Your task to perform on an android device: allow cookies in the chrome app Image 0: 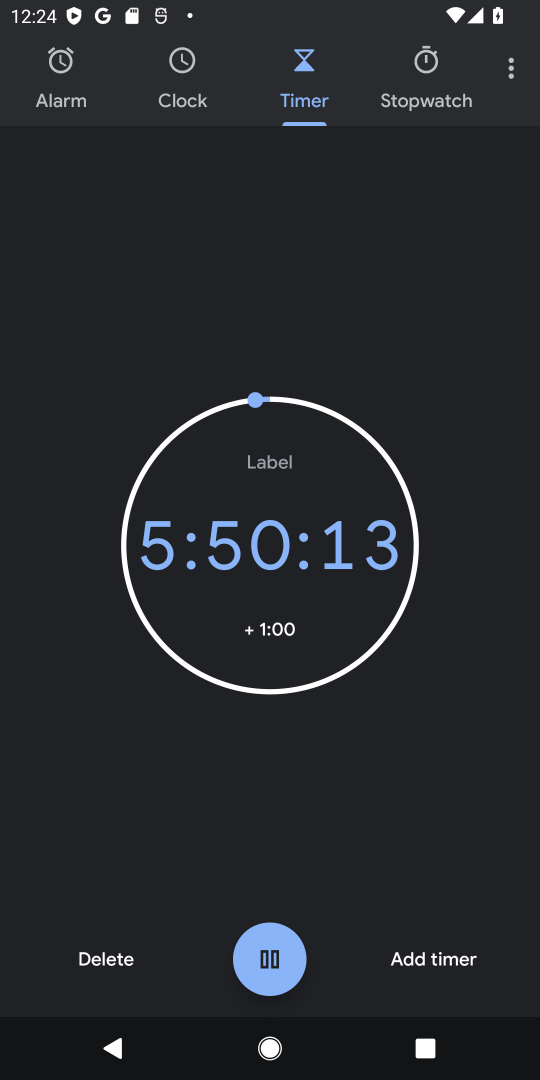
Step 0: press home button
Your task to perform on an android device: allow cookies in the chrome app Image 1: 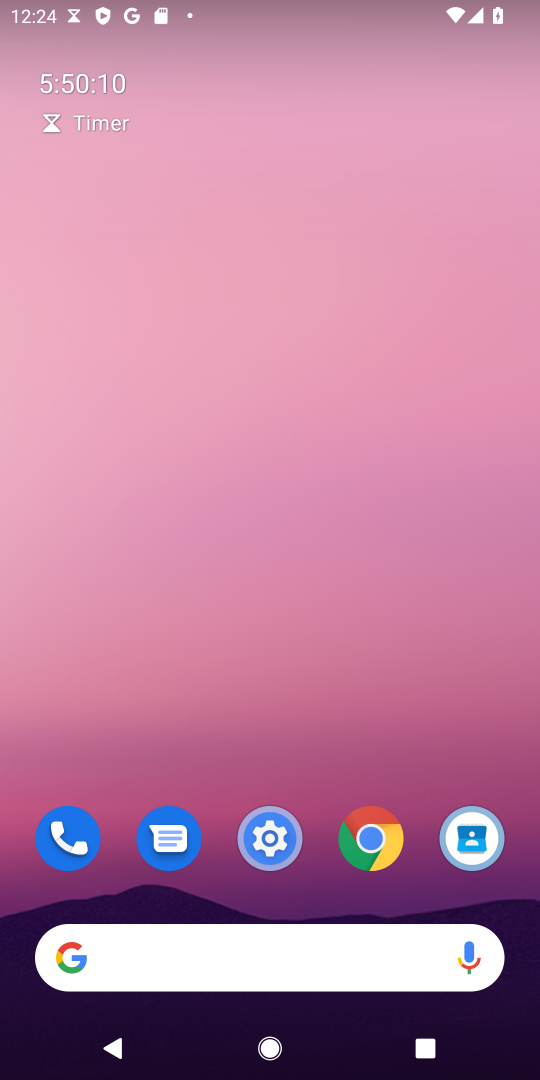
Step 1: click (384, 822)
Your task to perform on an android device: allow cookies in the chrome app Image 2: 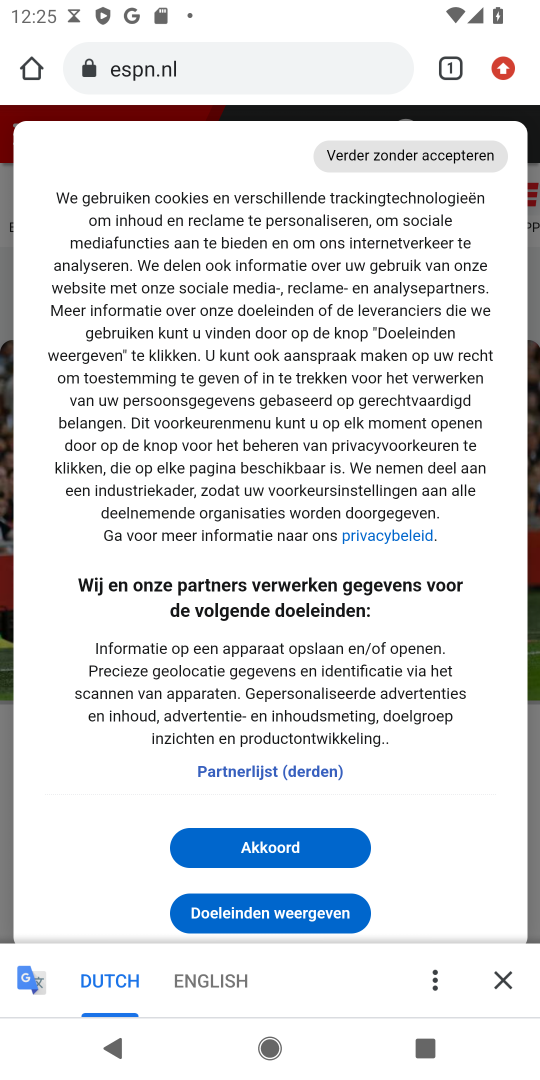
Step 2: click (511, 68)
Your task to perform on an android device: allow cookies in the chrome app Image 3: 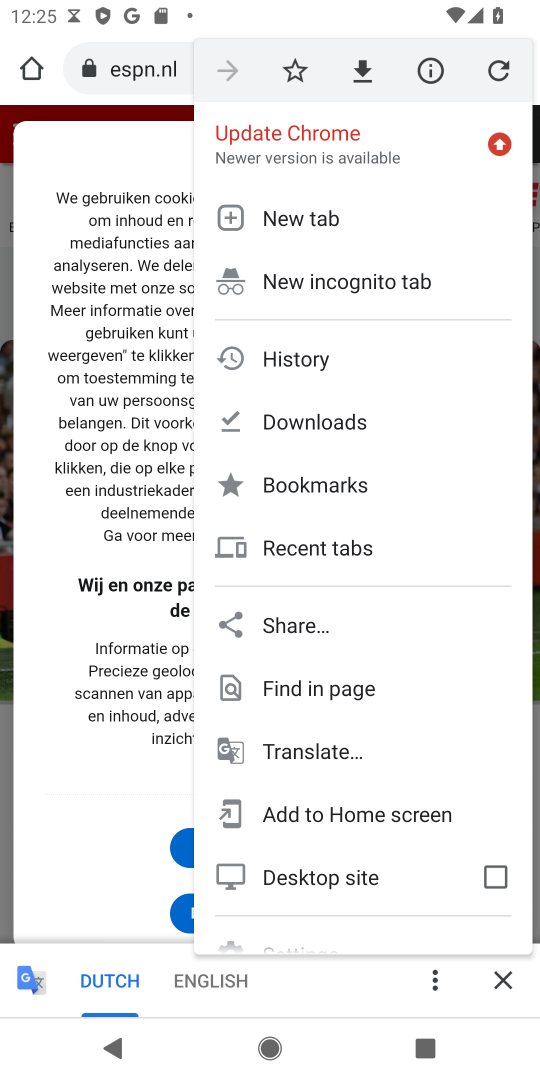
Step 3: drag from (324, 852) to (288, 400)
Your task to perform on an android device: allow cookies in the chrome app Image 4: 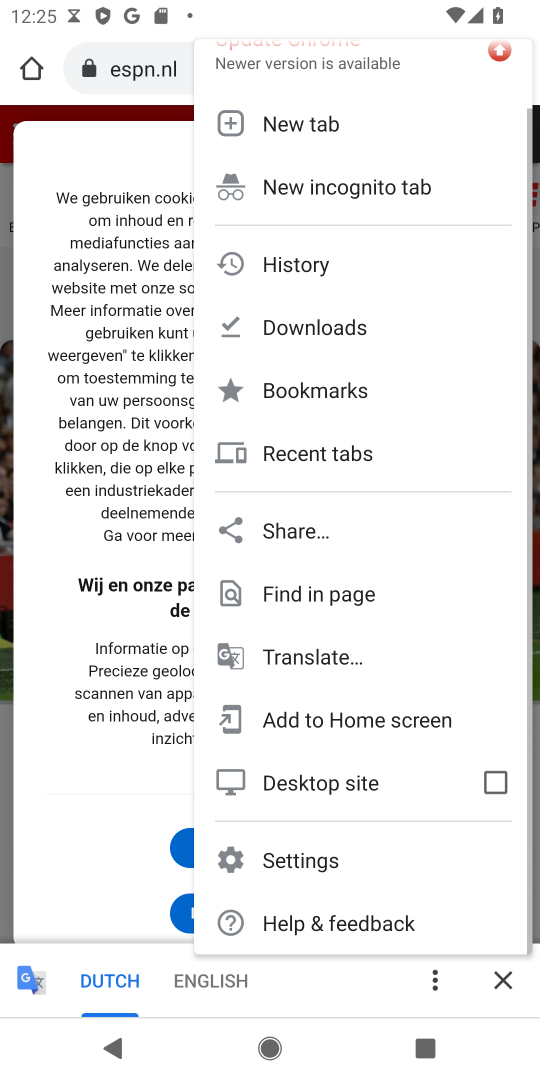
Step 4: click (317, 870)
Your task to perform on an android device: allow cookies in the chrome app Image 5: 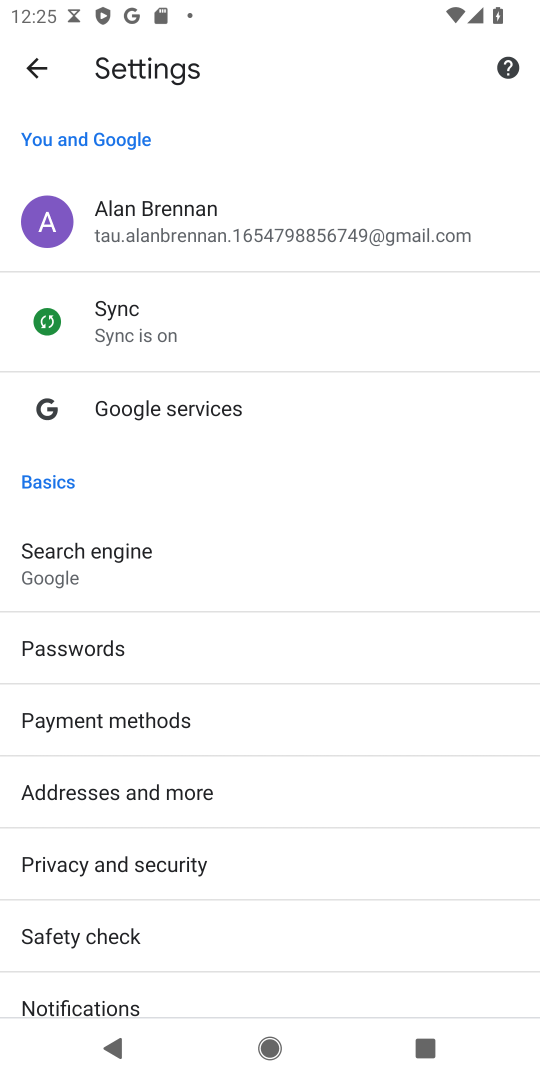
Step 5: drag from (306, 983) to (256, 428)
Your task to perform on an android device: allow cookies in the chrome app Image 6: 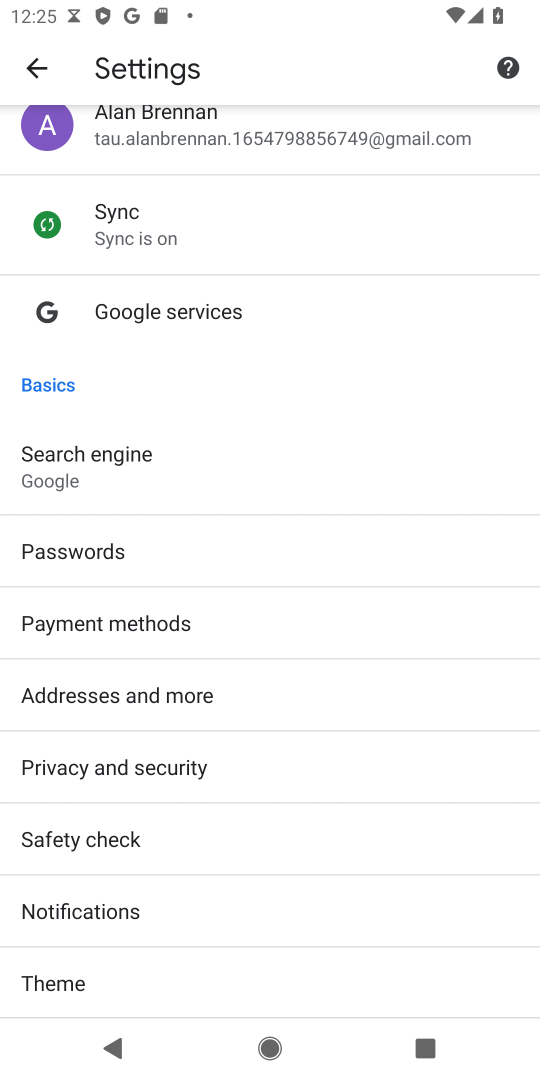
Step 6: drag from (342, 808) to (315, 105)
Your task to perform on an android device: allow cookies in the chrome app Image 7: 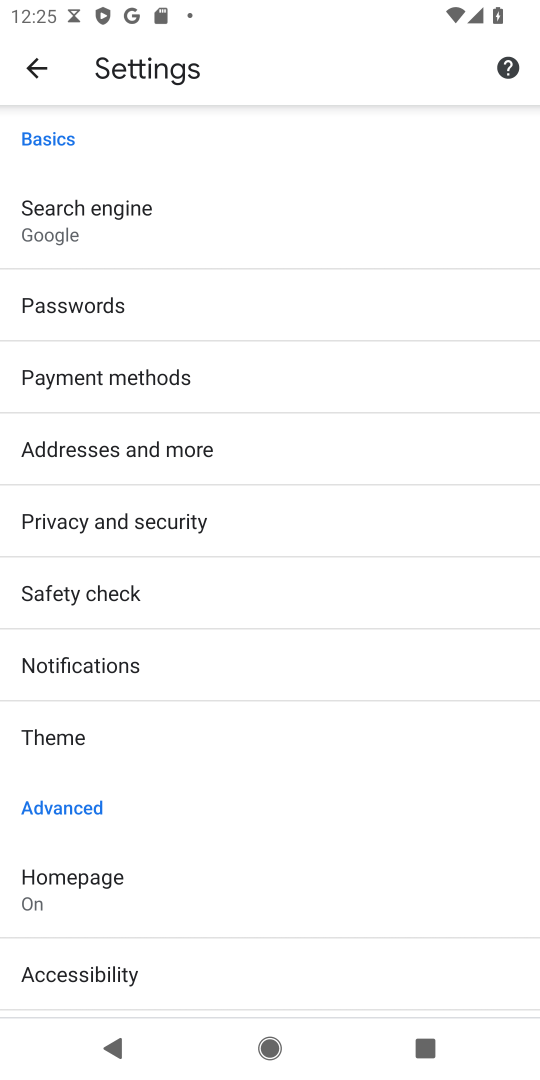
Step 7: drag from (233, 840) to (170, 187)
Your task to perform on an android device: allow cookies in the chrome app Image 8: 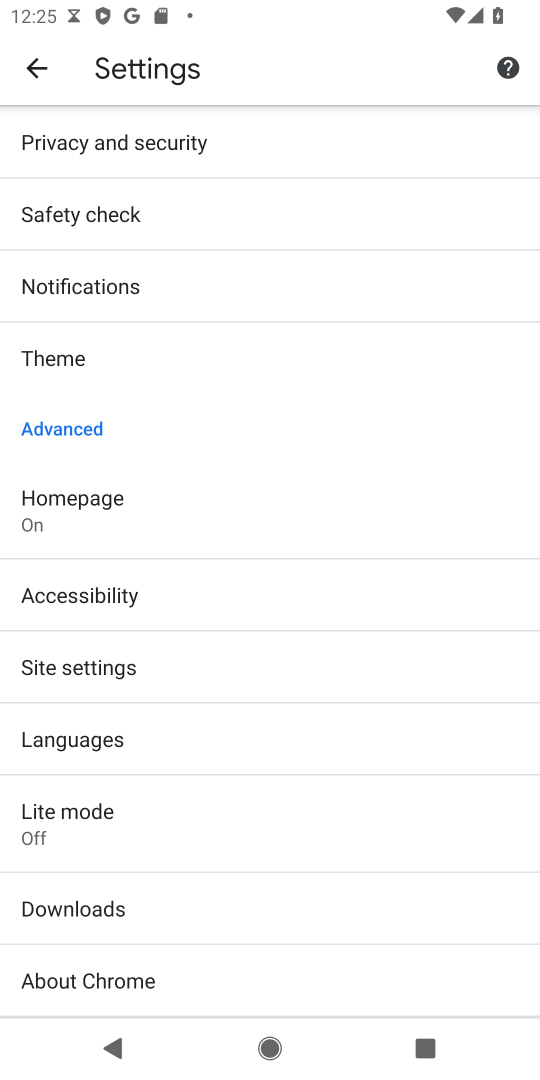
Step 8: click (87, 671)
Your task to perform on an android device: allow cookies in the chrome app Image 9: 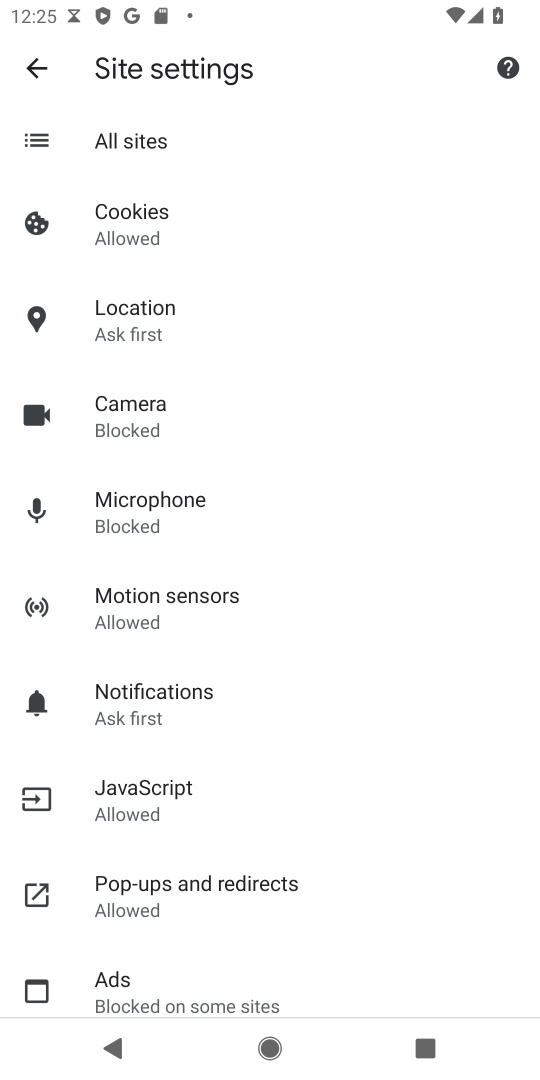
Step 9: click (166, 202)
Your task to perform on an android device: allow cookies in the chrome app Image 10: 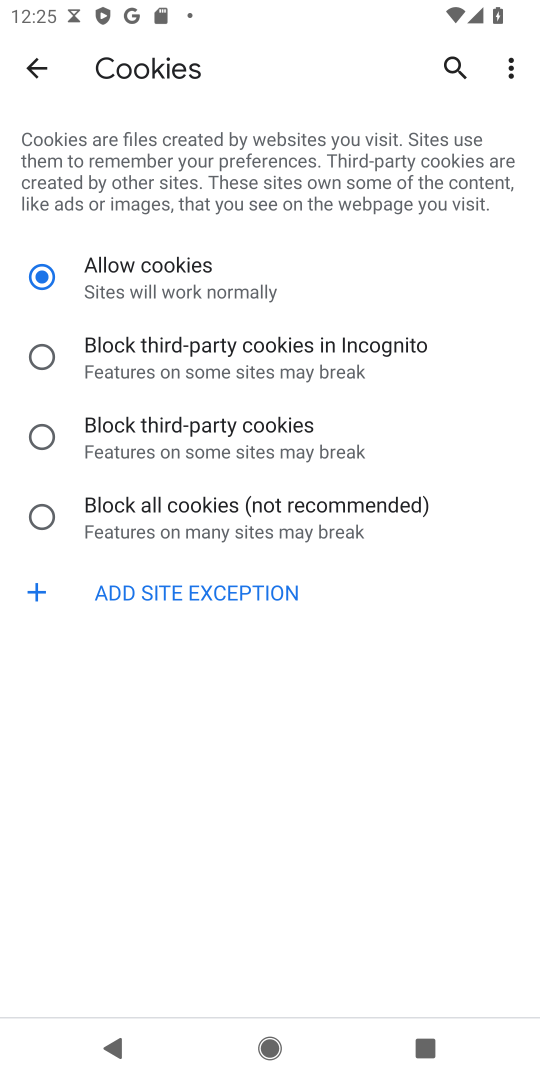
Step 10: task complete